Your task to perform on an android device: change the clock display to digital Image 0: 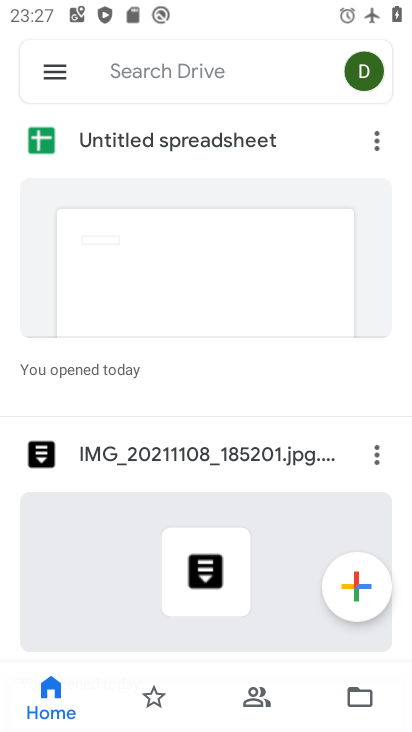
Step 0: press home button
Your task to perform on an android device: change the clock display to digital Image 1: 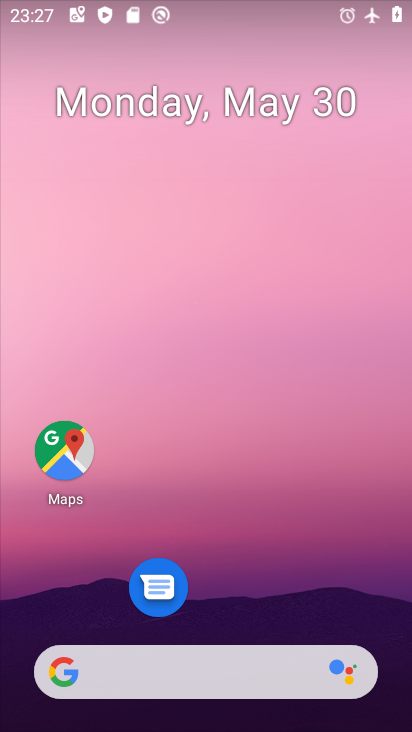
Step 1: drag from (238, 644) to (183, 0)
Your task to perform on an android device: change the clock display to digital Image 2: 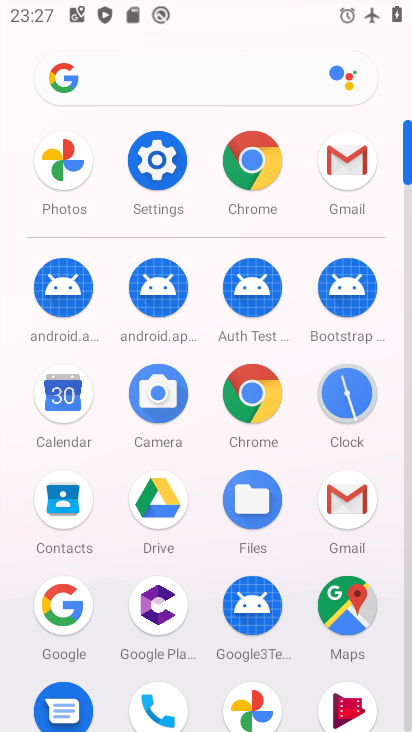
Step 2: click (338, 353)
Your task to perform on an android device: change the clock display to digital Image 3: 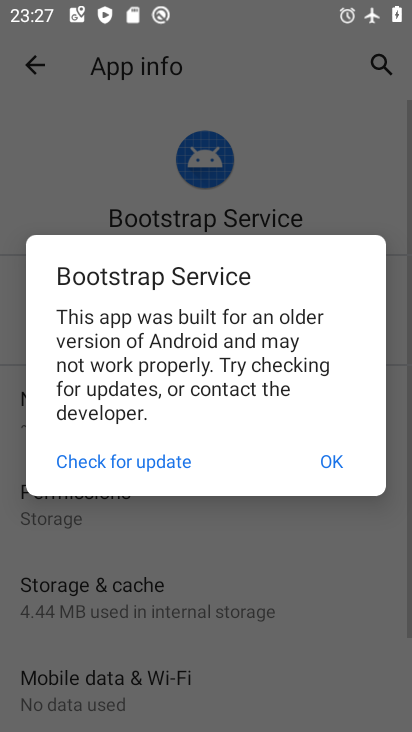
Step 3: press home button
Your task to perform on an android device: change the clock display to digital Image 4: 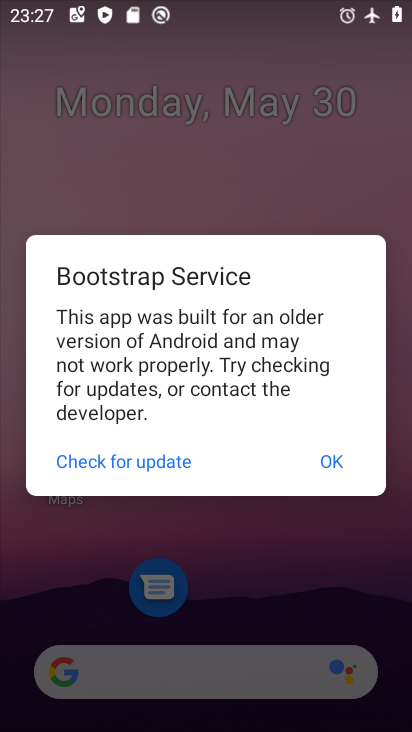
Step 4: click (323, 540)
Your task to perform on an android device: change the clock display to digital Image 5: 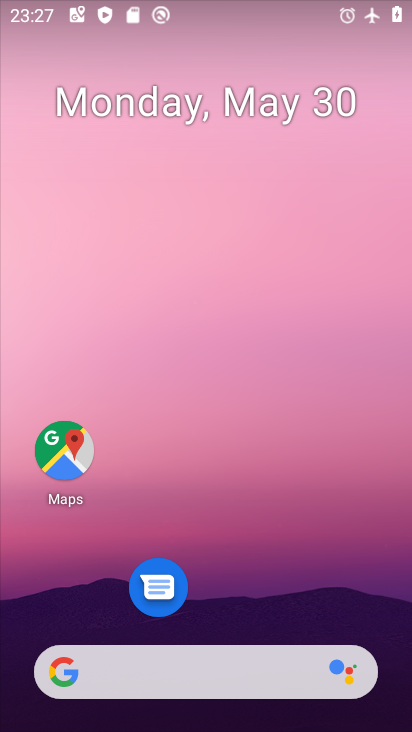
Step 5: drag from (238, 615) to (252, 30)
Your task to perform on an android device: change the clock display to digital Image 6: 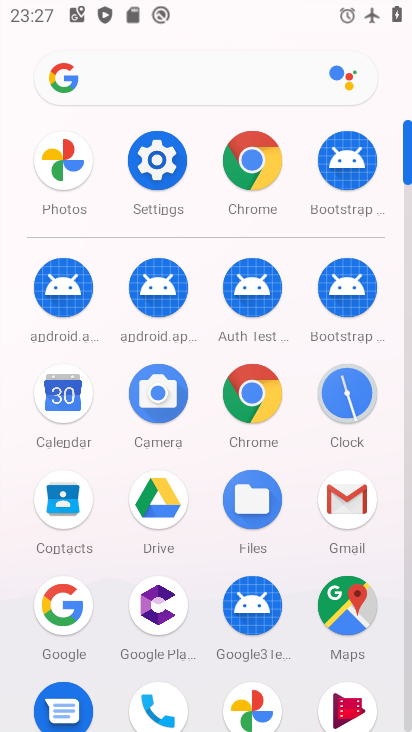
Step 6: click (353, 382)
Your task to perform on an android device: change the clock display to digital Image 7: 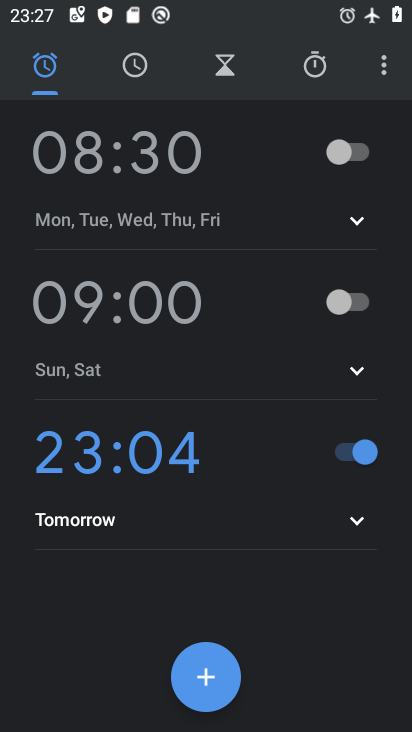
Step 7: click (385, 59)
Your task to perform on an android device: change the clock display to digital Image 8: 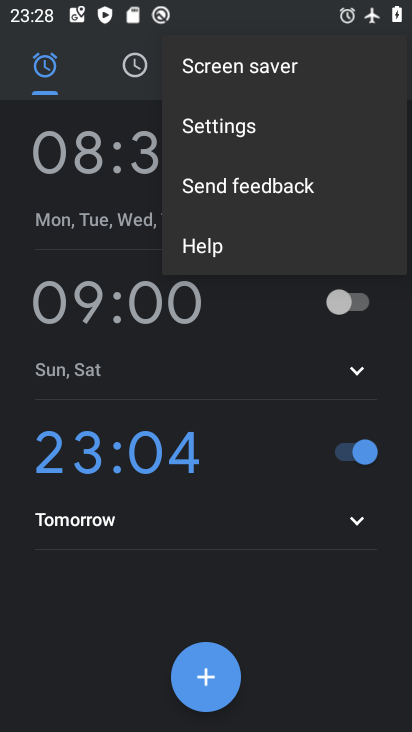
Step 8: click (219, 132)
Your task to perform on an android device: change the clock display to digital Image 9: 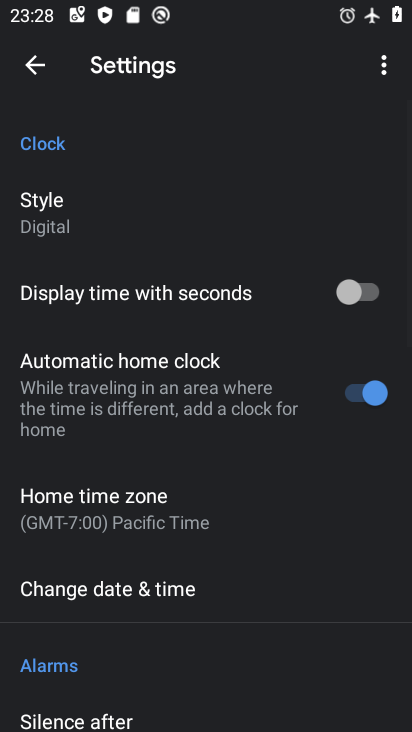
Step 9: click (89, 193)
Your task to perform on an android device: change the clock display to digital Image 10: 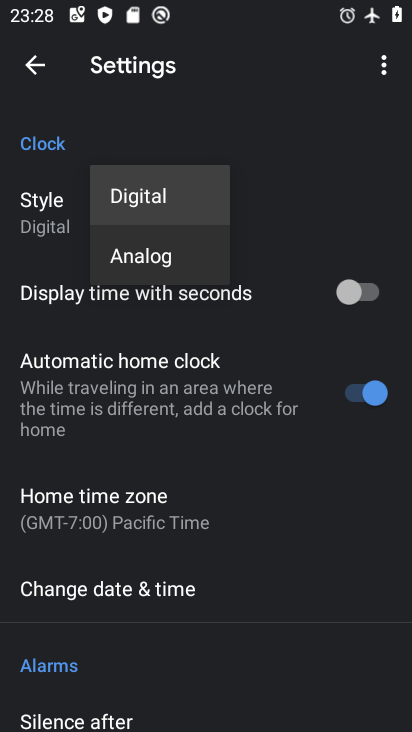
Step 10: click (154, 216)
Your task to perform on an android device: change the clock display to digital Image 11: 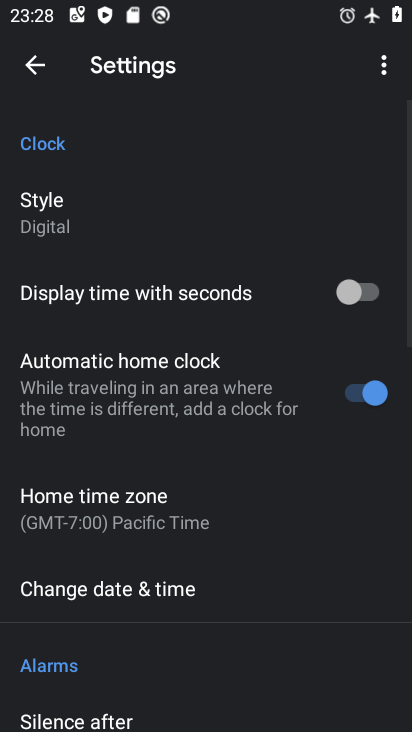
Step 11: task complete